Your task to perform on an android device: change notifications settings Image 0: 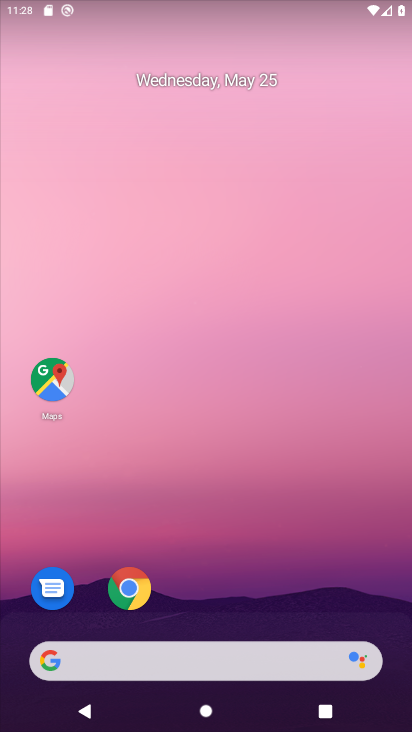
Step 0: drag from (210, 611) to (265, 174)
Your task to perform on an android device: change notifications settings Image 1: 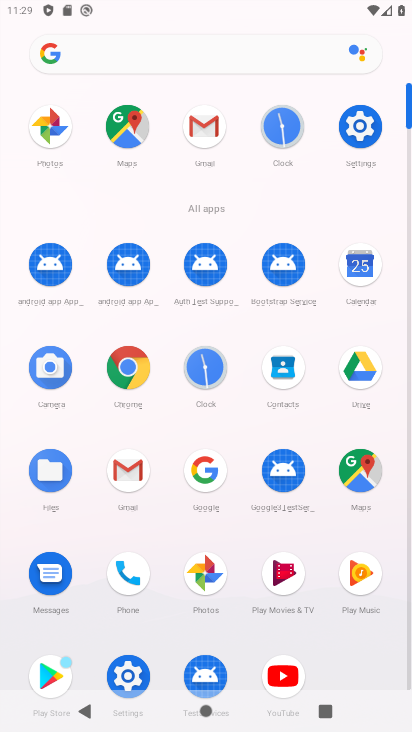
Step 1: click (123, 674)
Your task to perform on an android device: change notifications settings Image 2: 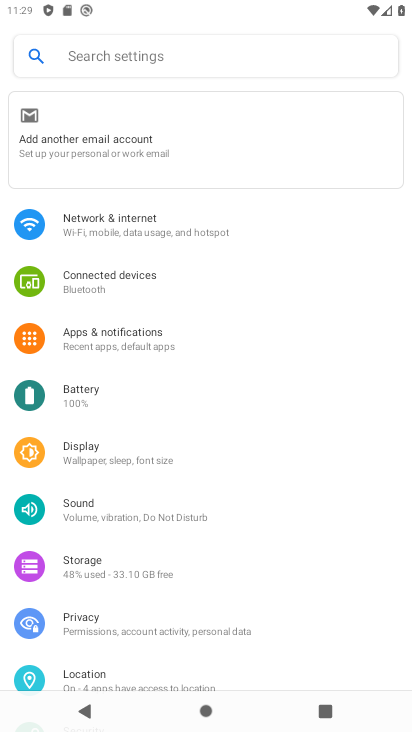
Step 2: click (159, 338)
Your task to perform on an android device: change notifications settings Image 3: 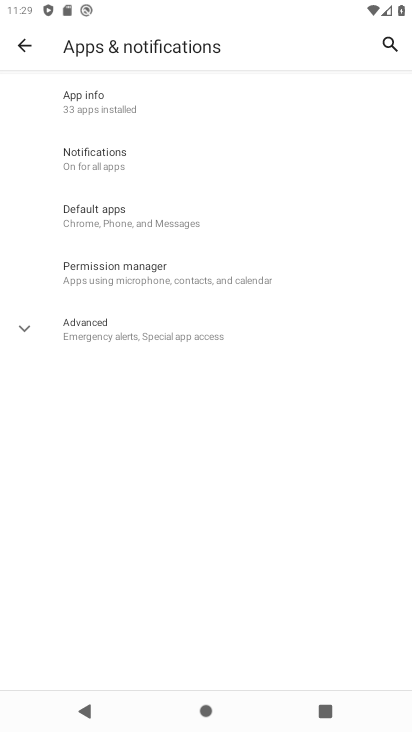
Step 3: task complete